Your task to perform on an android device: choose inbox layout in the gmail app Image 0: 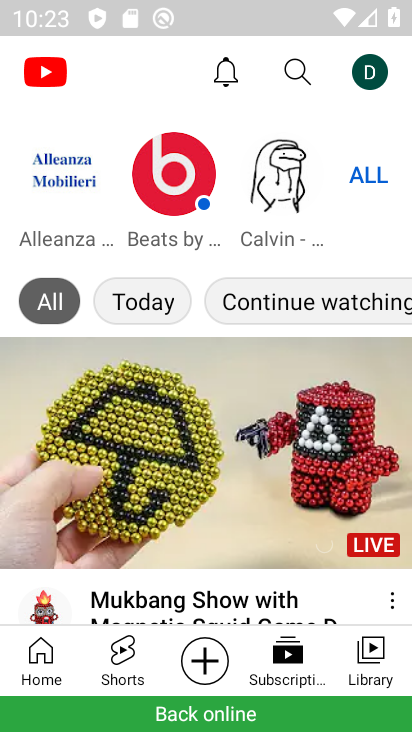
Step 0: press home button
Your task to perform on an android device: choose inbox layout in the gmail app Image 1: 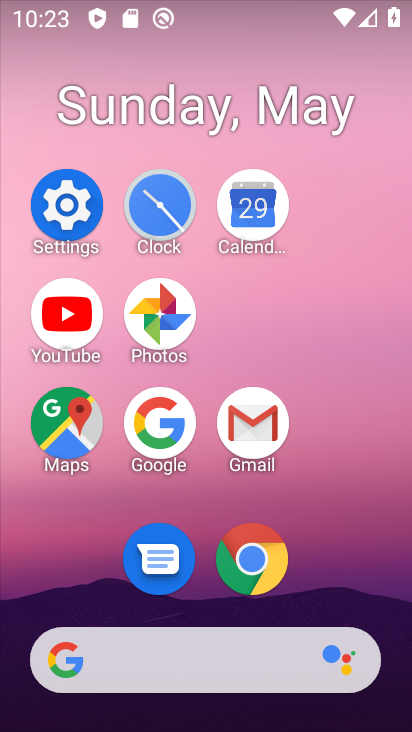
Step 1: click (290, 435)
Your task to perform on an android device: choose inbox layout in the gmail app Image 2: 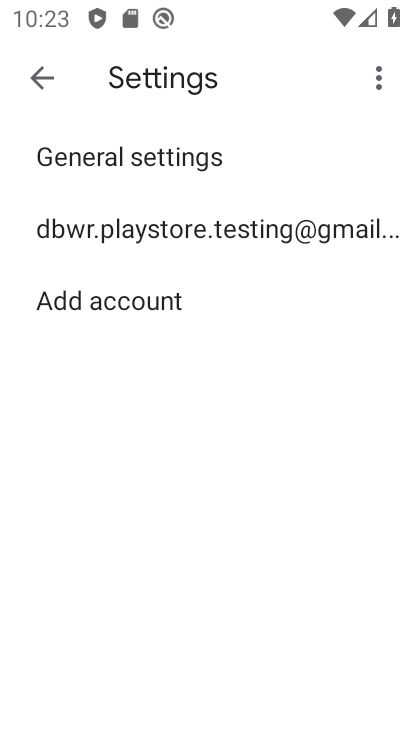
Step 2: click (224, 228)
Your task to perform on an android device: choose inbox layout in the gmail app Image 3: 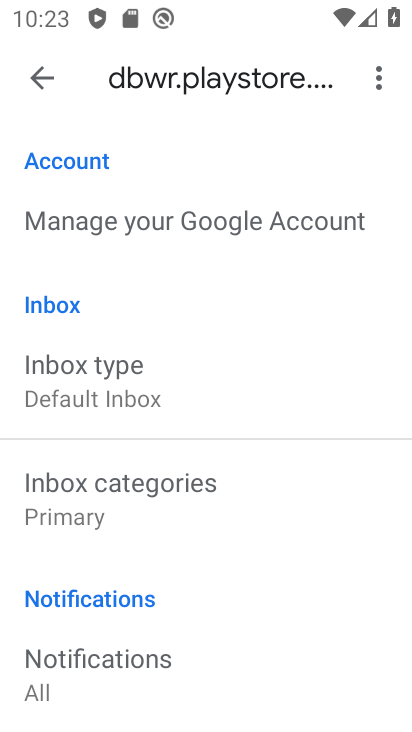
Step 3: click (184, 413)
Your task to perform on an android device: choose inbox layout in the gmail app Image 4: 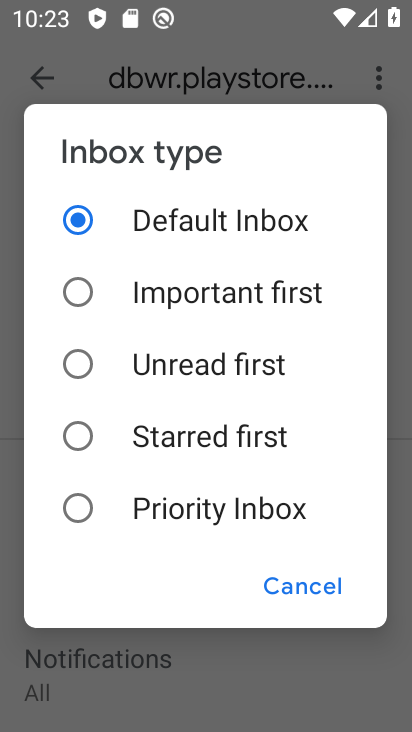
Step 4: task complete